Your task to perform on an android device: install app "Speedtest by Ookla" Image 0: 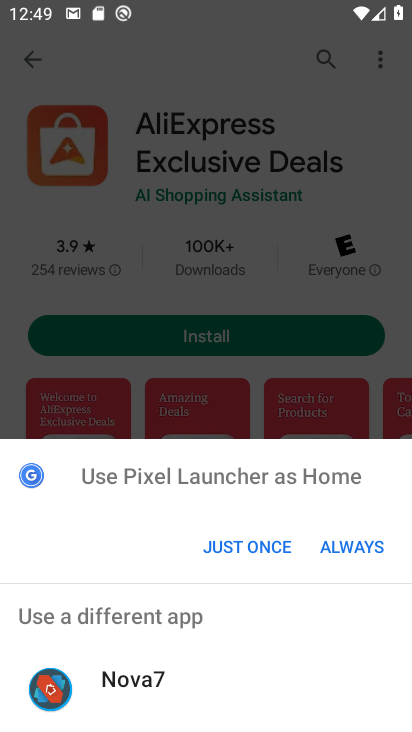
Step 0: click (376, 548)
Your task to perform on an android device: install app "Speedtest by Ookla" Image 1: 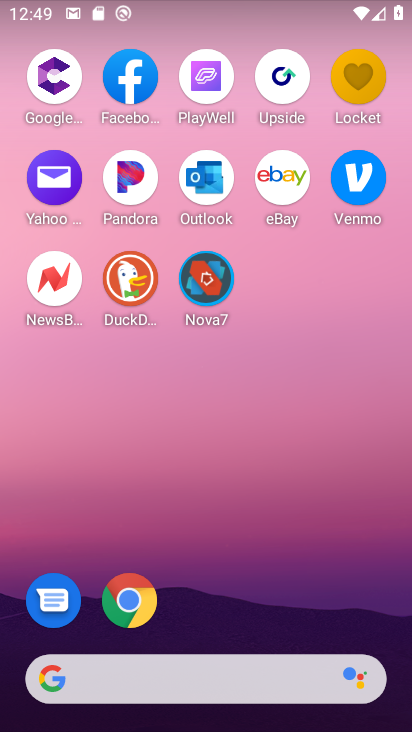
Step 1: drag from (213, 645) to (194, 161)
Your task to perform on an android device: install app "Speedtest by Ookla" Image 2: 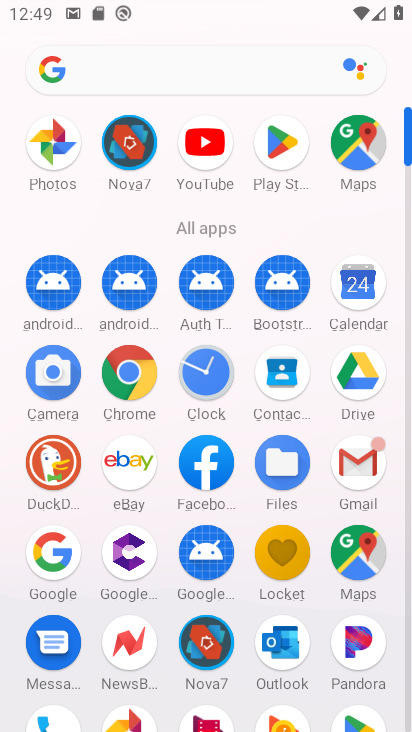
Step 2: click (279, 167)
Your task to perform on an android device: install app "Speedtest by Ookla" Image 3: 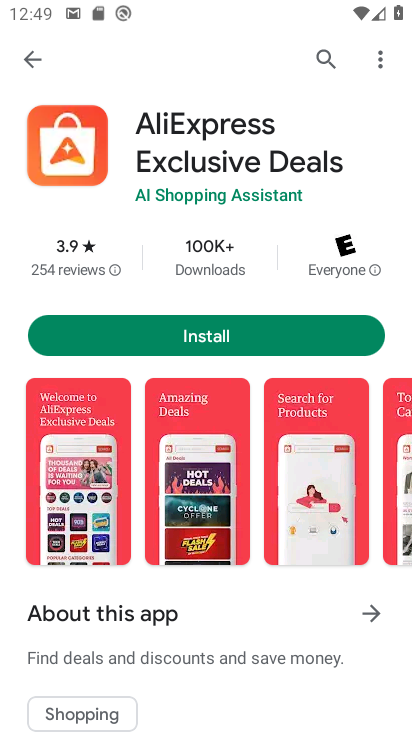
Step 3: click (313, 66)
Your task to perform on an android device: install app "Speedtest by Ookla" Image 4: 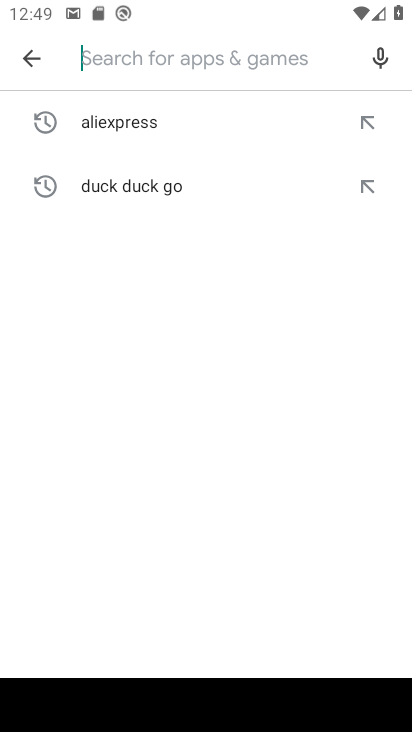
Step 4: type "speedtesty ookla"
Your task to perform on an android device: install app "Speedtest by Ookla" Image 5: 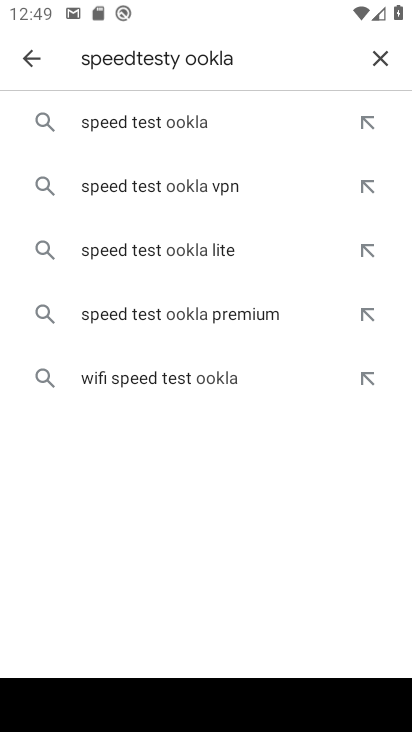
Step 5: click (262, 133)
Your task to perform on an android device: install app "Speedtest by Ookla" Image 6: 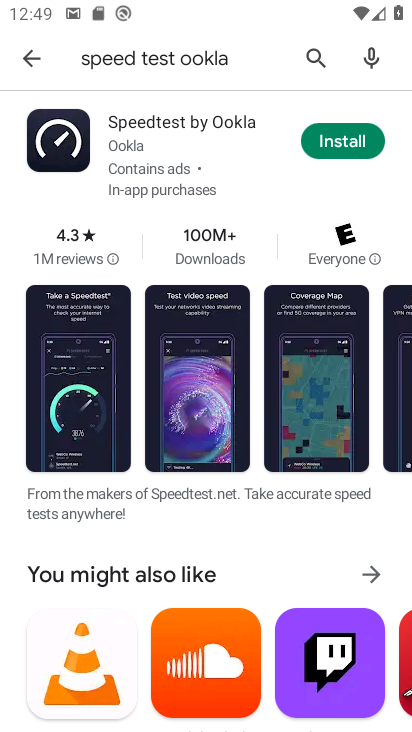
Step 6: click (342, 155)
Your task to perform on an android device: install app "Speedtest by Ookla" Image 7: 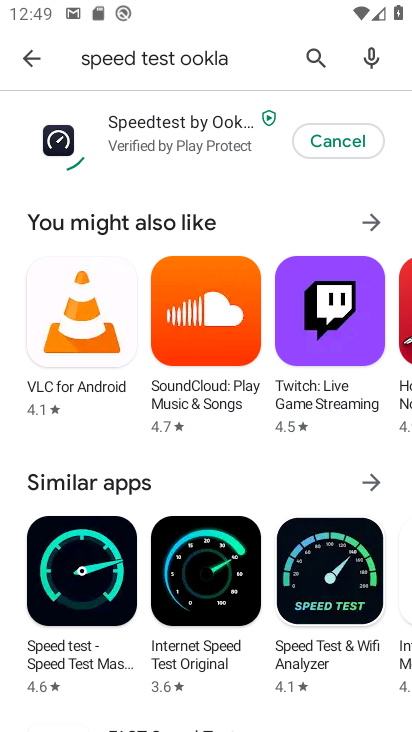
Step 7: task complete